Your task to perform on an android device: Open network settings Image 0: 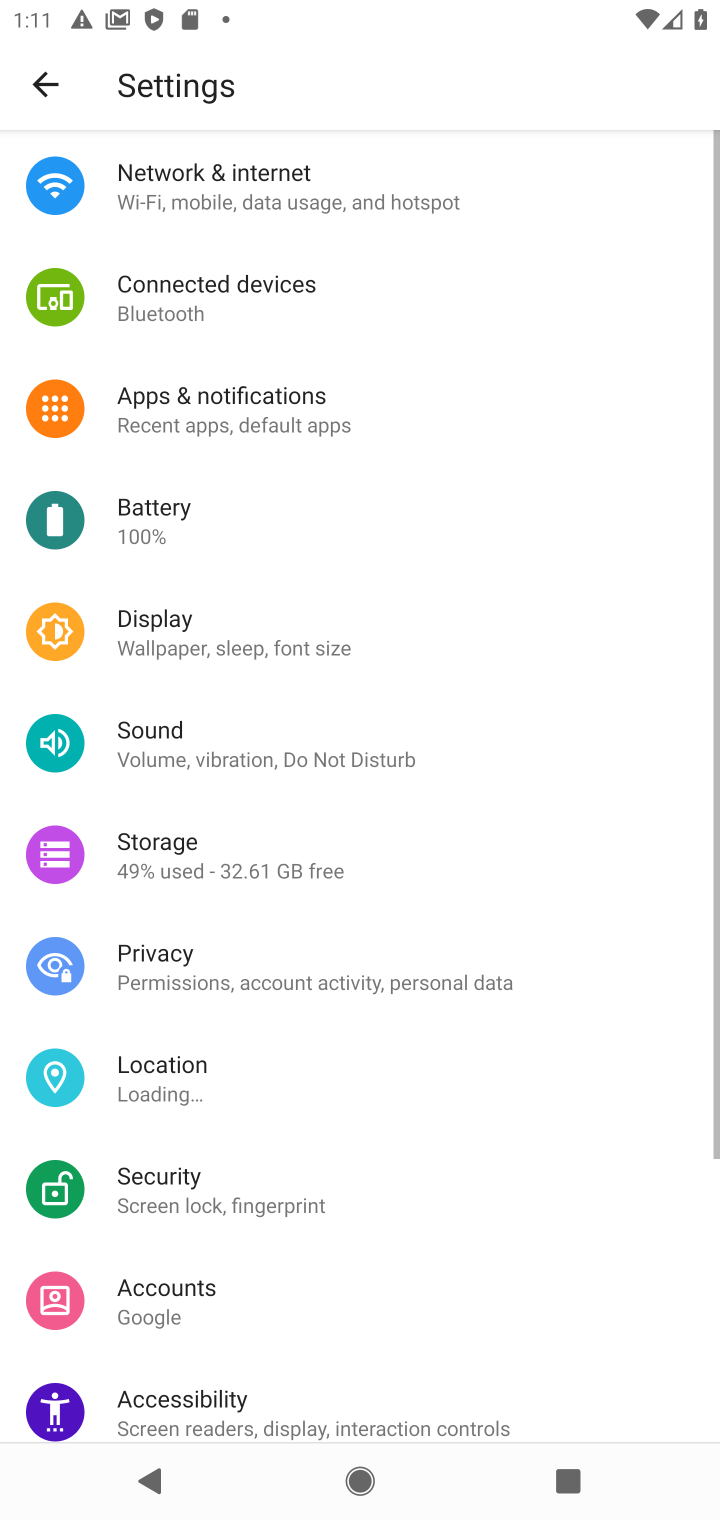
Step 0: press home button
Your task to perform on an android device: Open network settings Image 1: 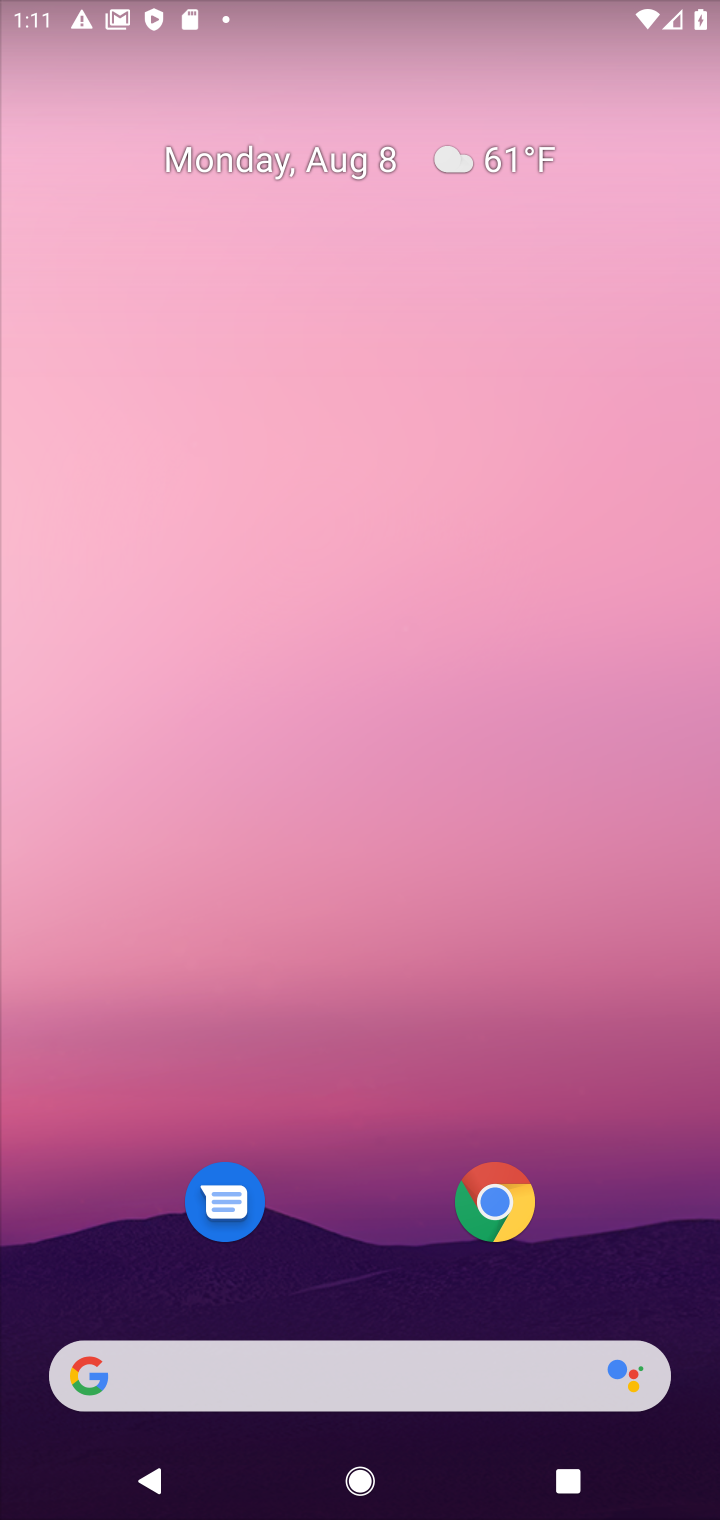
Step 1: press home button
Your task to perform on an android device: Open network settings Image 2: 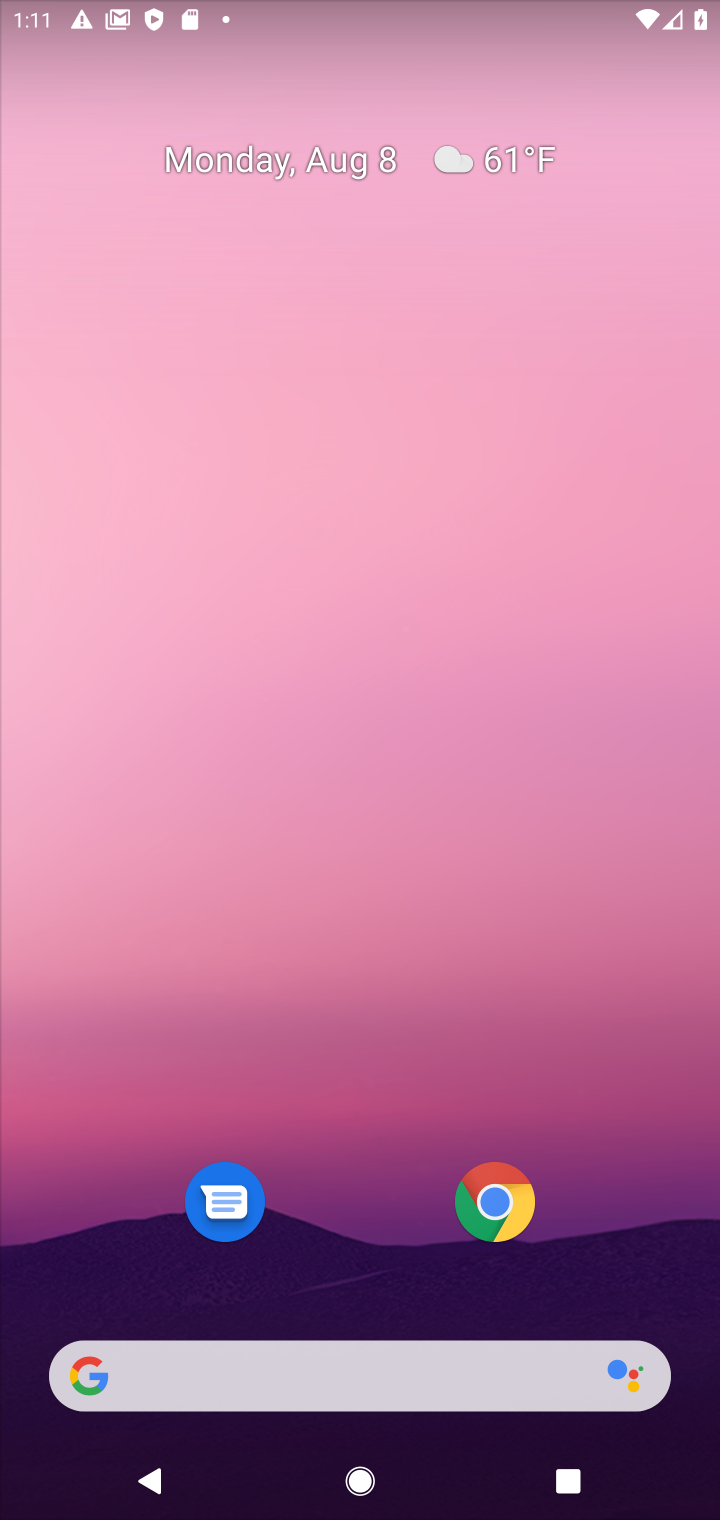
Step 2: drag from (623, 1119) to (652, 247)
Your task to perform on an android device: Open network settings Image 3: 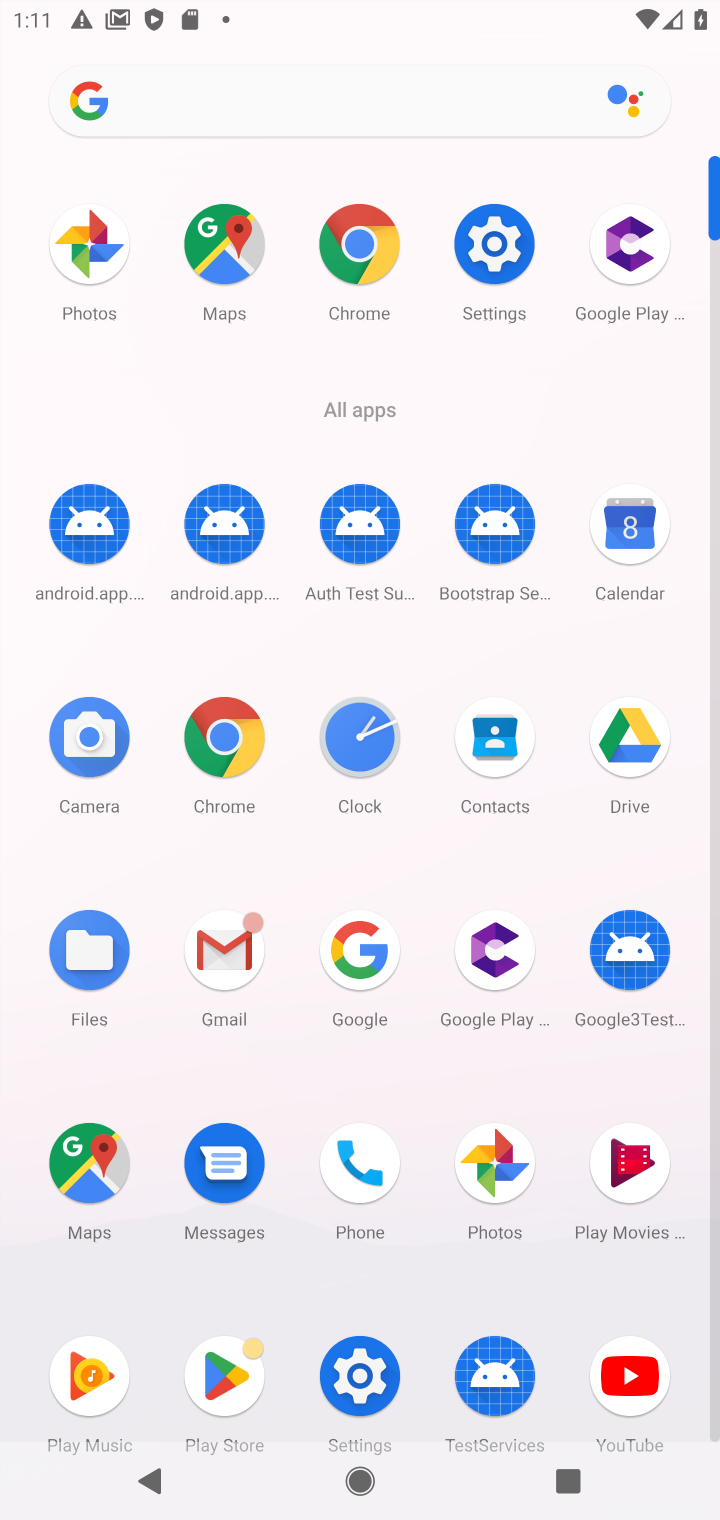
Step 3: click (489, 225)
Your task to perform on an android device: Open network settings Image 4: 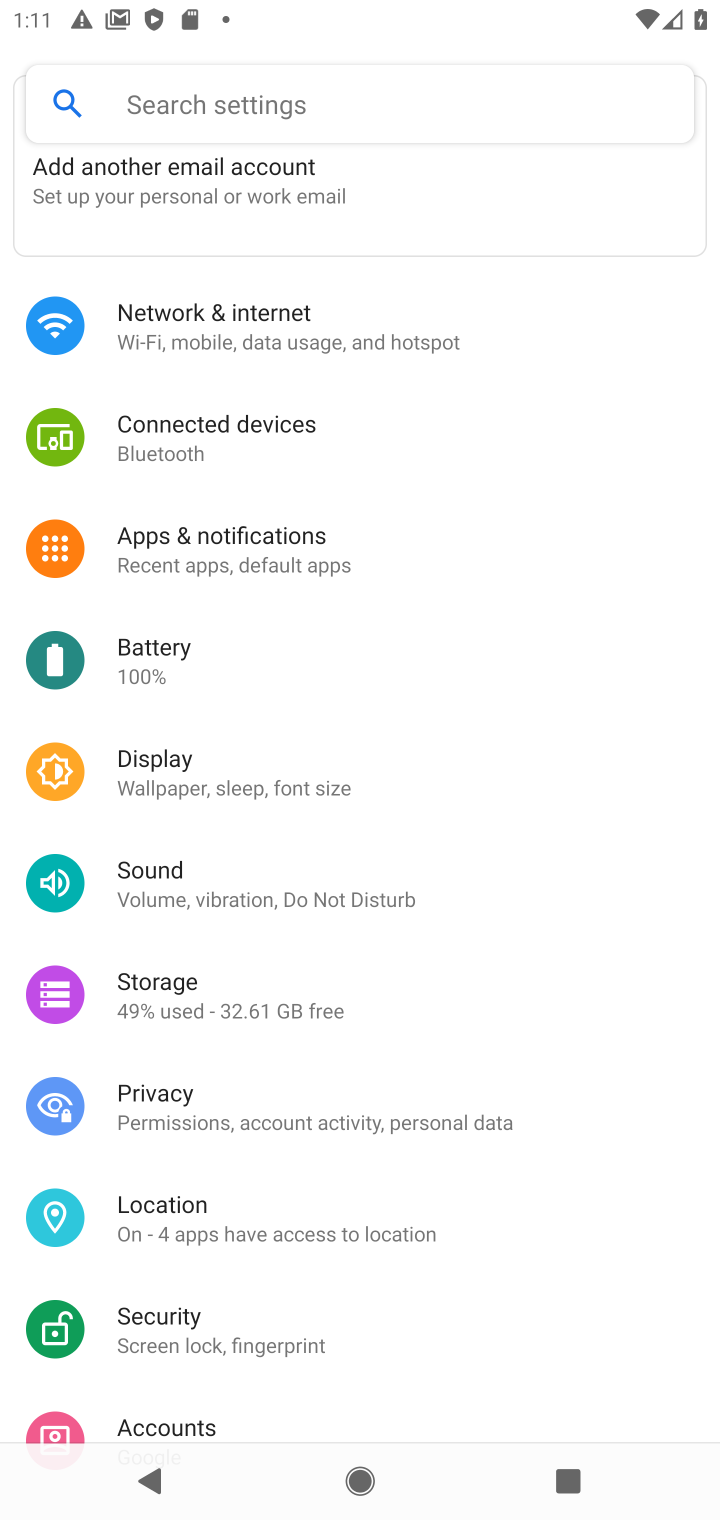
Step 4: drag from (614, 983) to (615, 717)
Your task to perform on an android device: Open network settings Image 5: 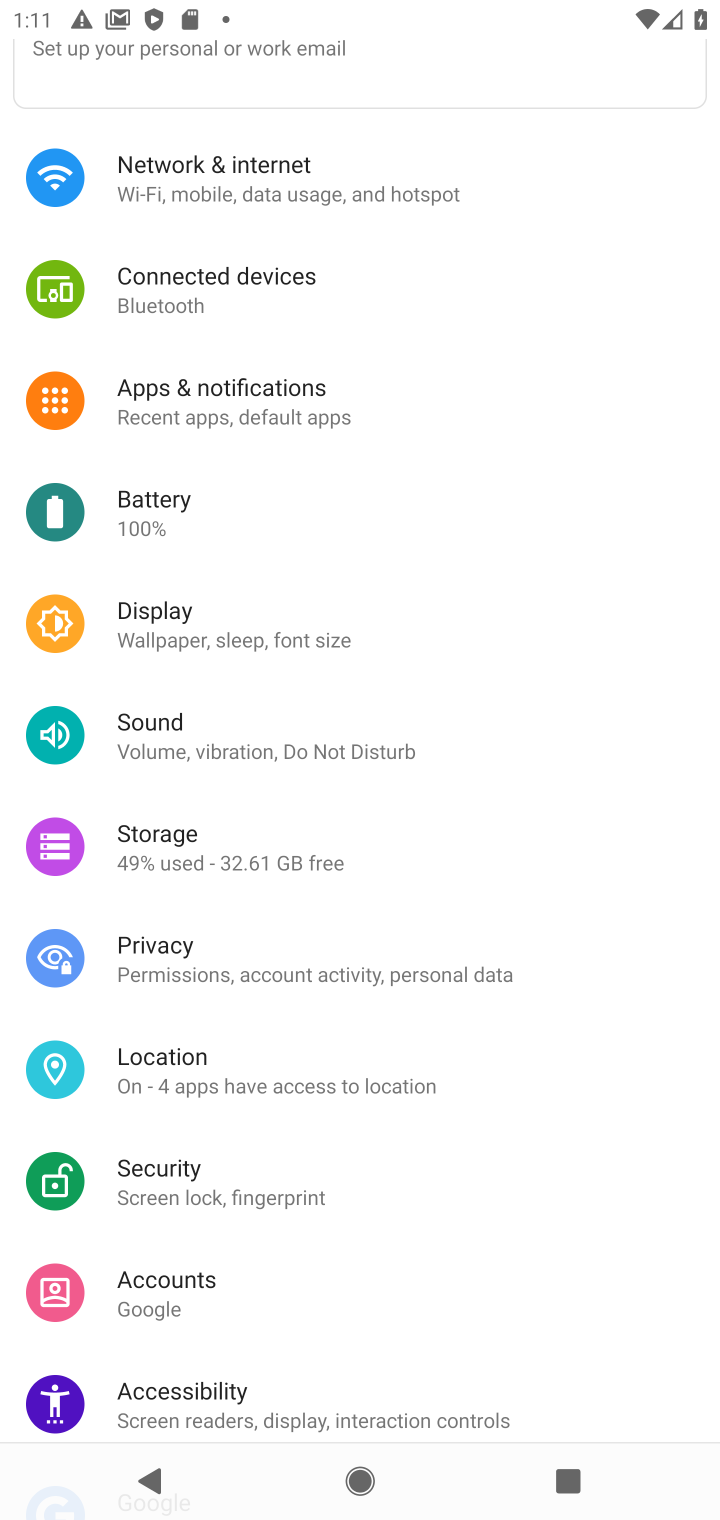
Step 5: drag from (586, 992) to (596, 752)
Your task to perform on an android device: Open network settings Image 6: 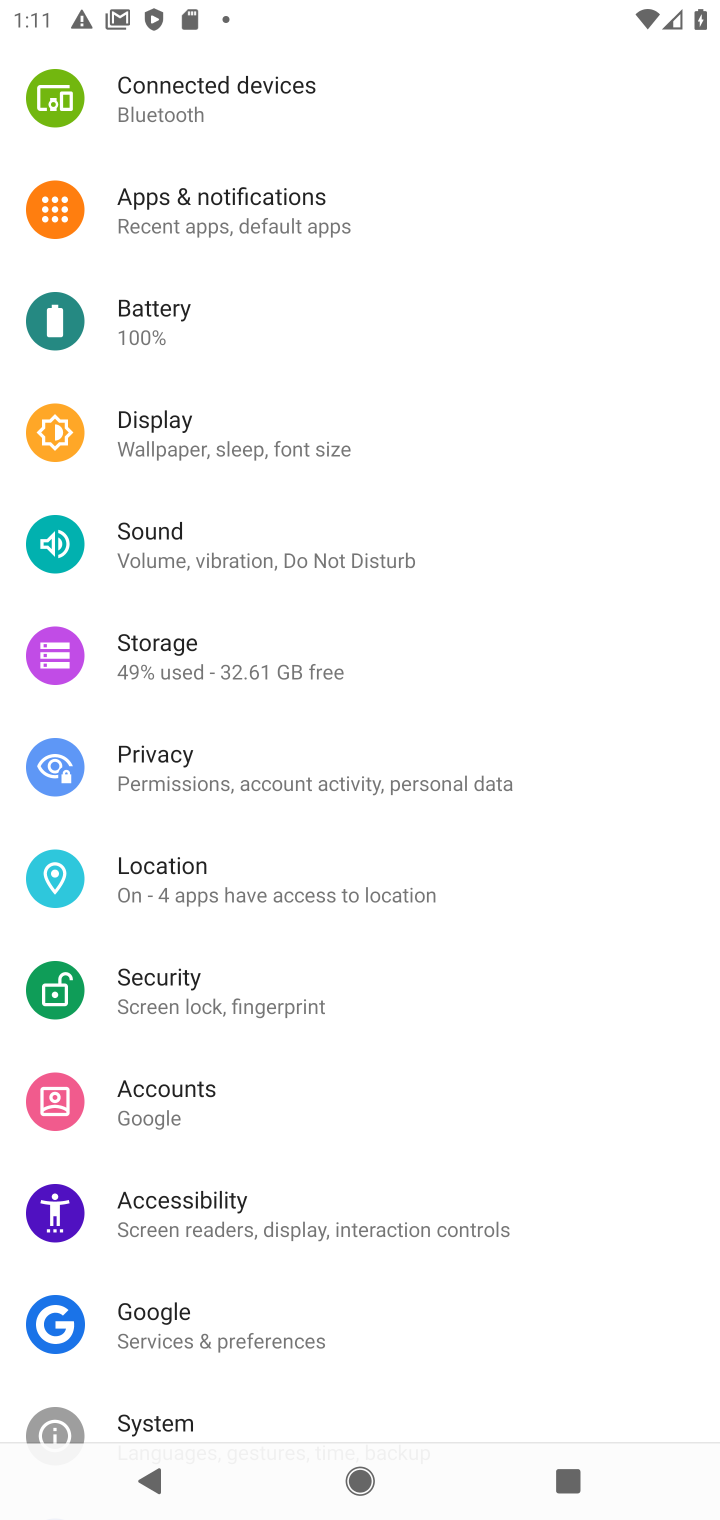
Step 6: drag from (569, 988) to (578, 729)
Your task to perform on an android device: Open network settings Image 7: 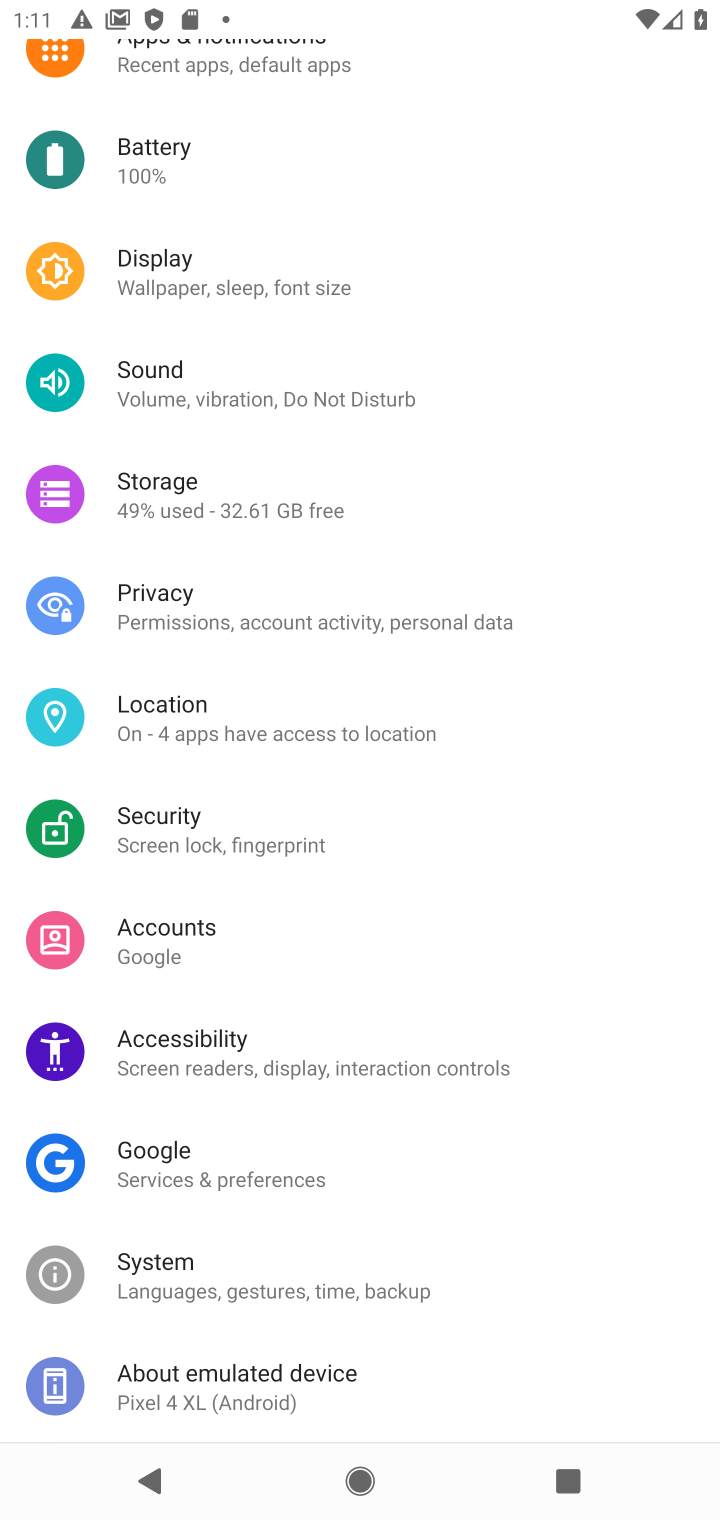
Step 7: drag from (561, 896) to (567, 672)
Your task to perform on an android device: Open network settings Image 8: 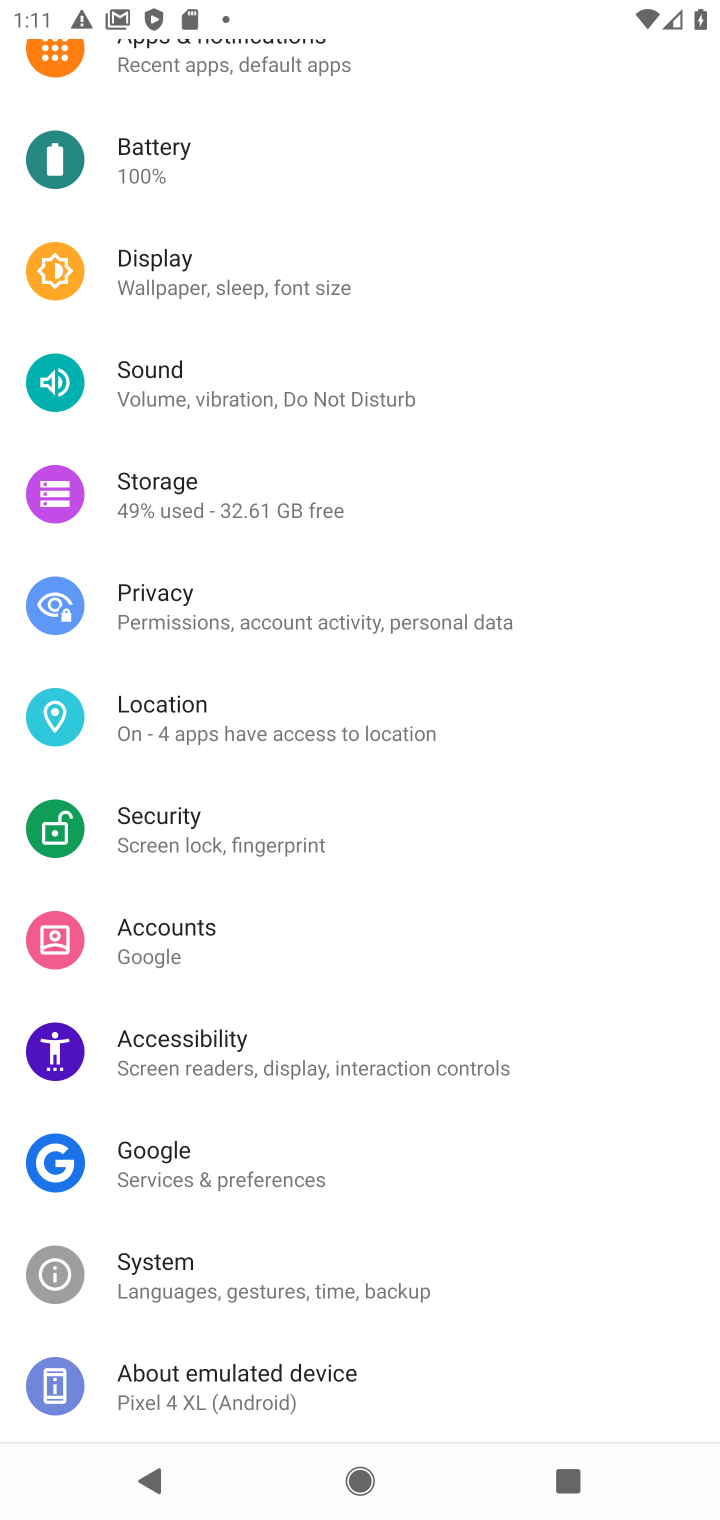
Step 8: drag from (614, 942) to (626, 548)
Your task to perform on an android device: Open network settings Image 9: 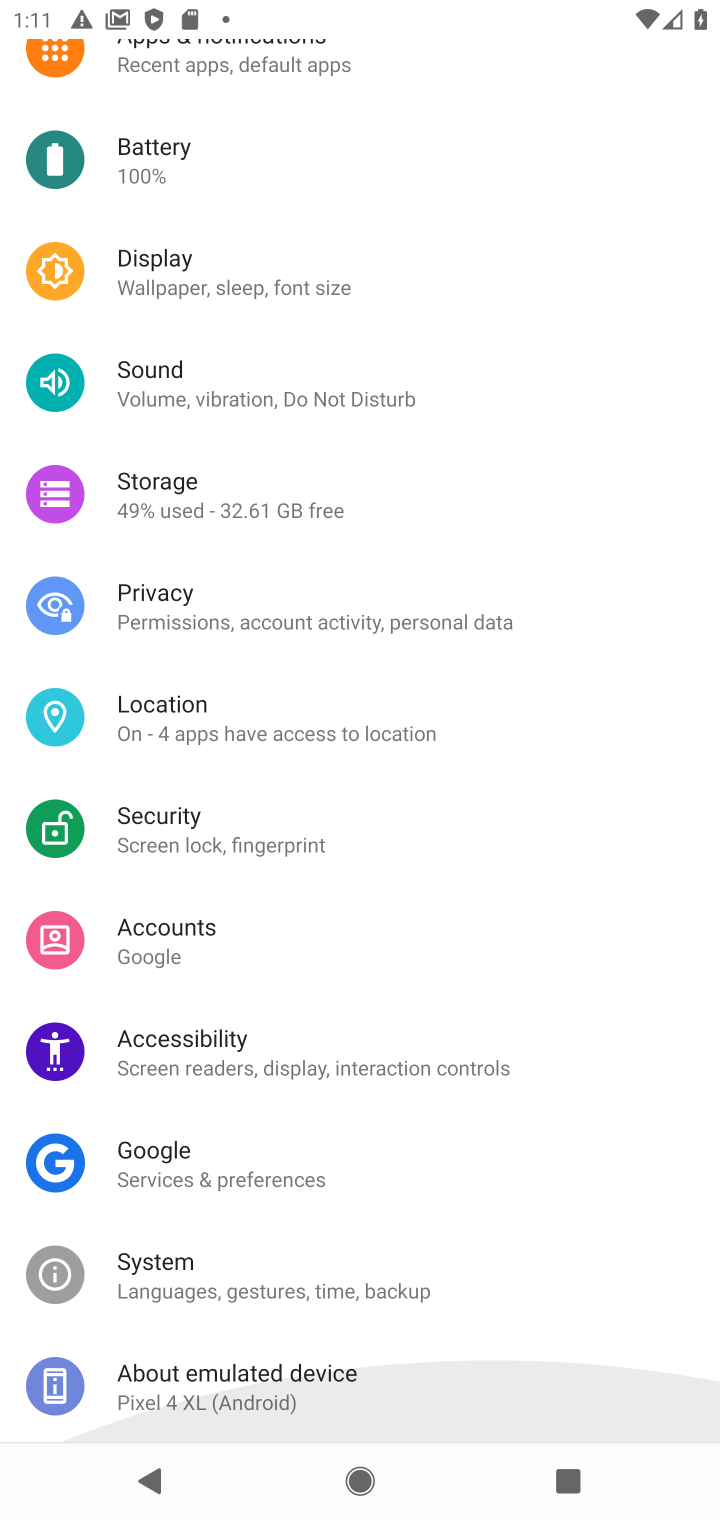
Step 9: drag from (580, 366) to (590, 649)
Your task to perform on an android device: Open network settings Image 10: 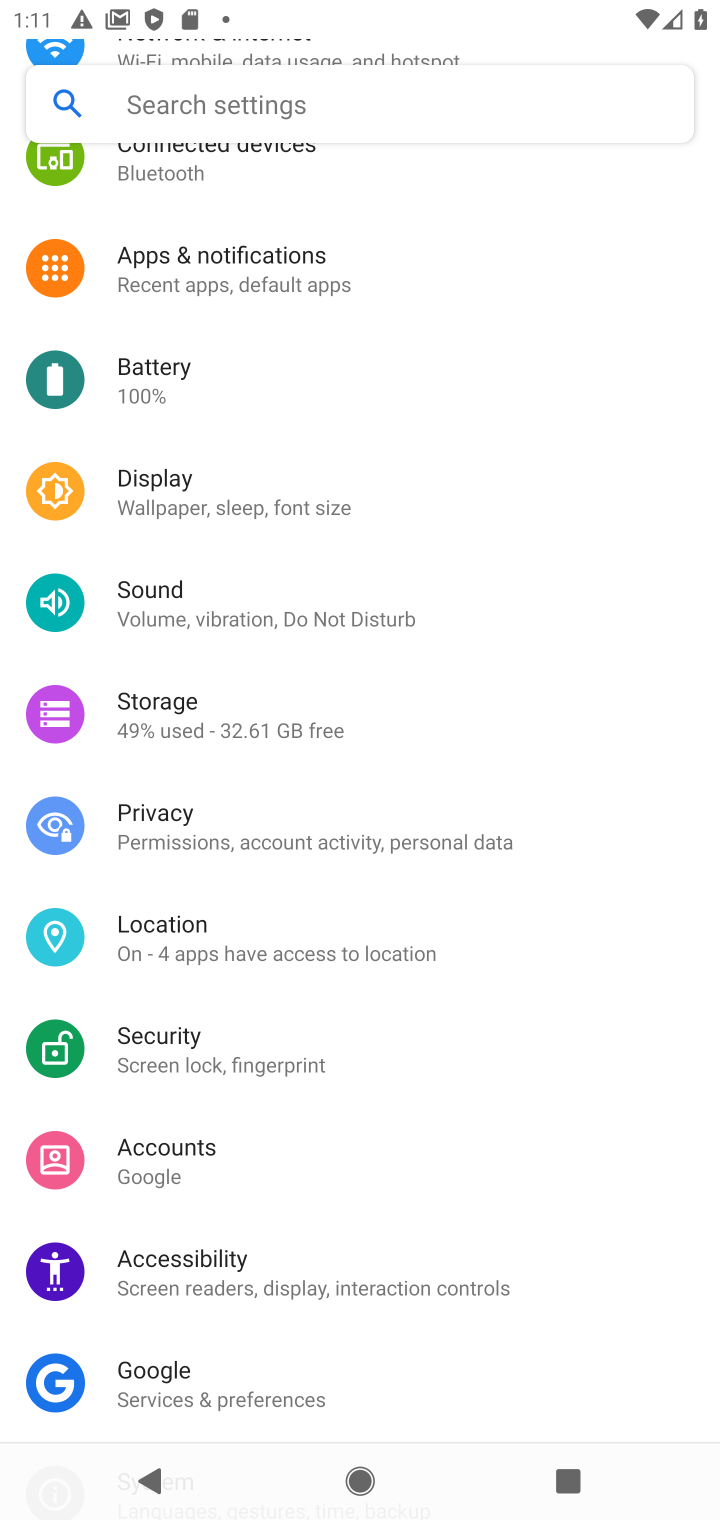
Step 10: drag from (616, 515) to (616, 643)
Your task to perform on an android device: Open network settings Image 11: 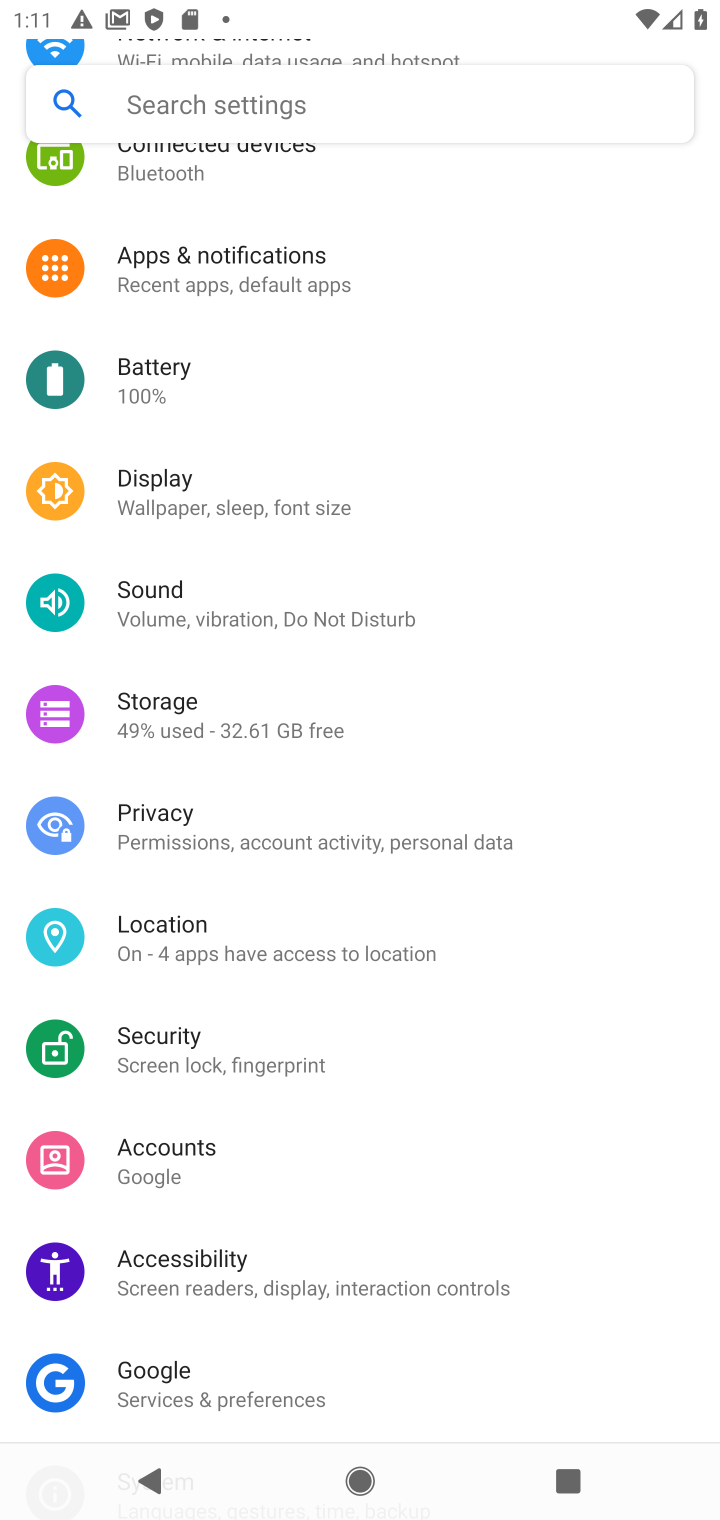
Step 11: drag from (604, 427) to (572, 791)
Your task to perform on an android device: Open network settings Image 12: 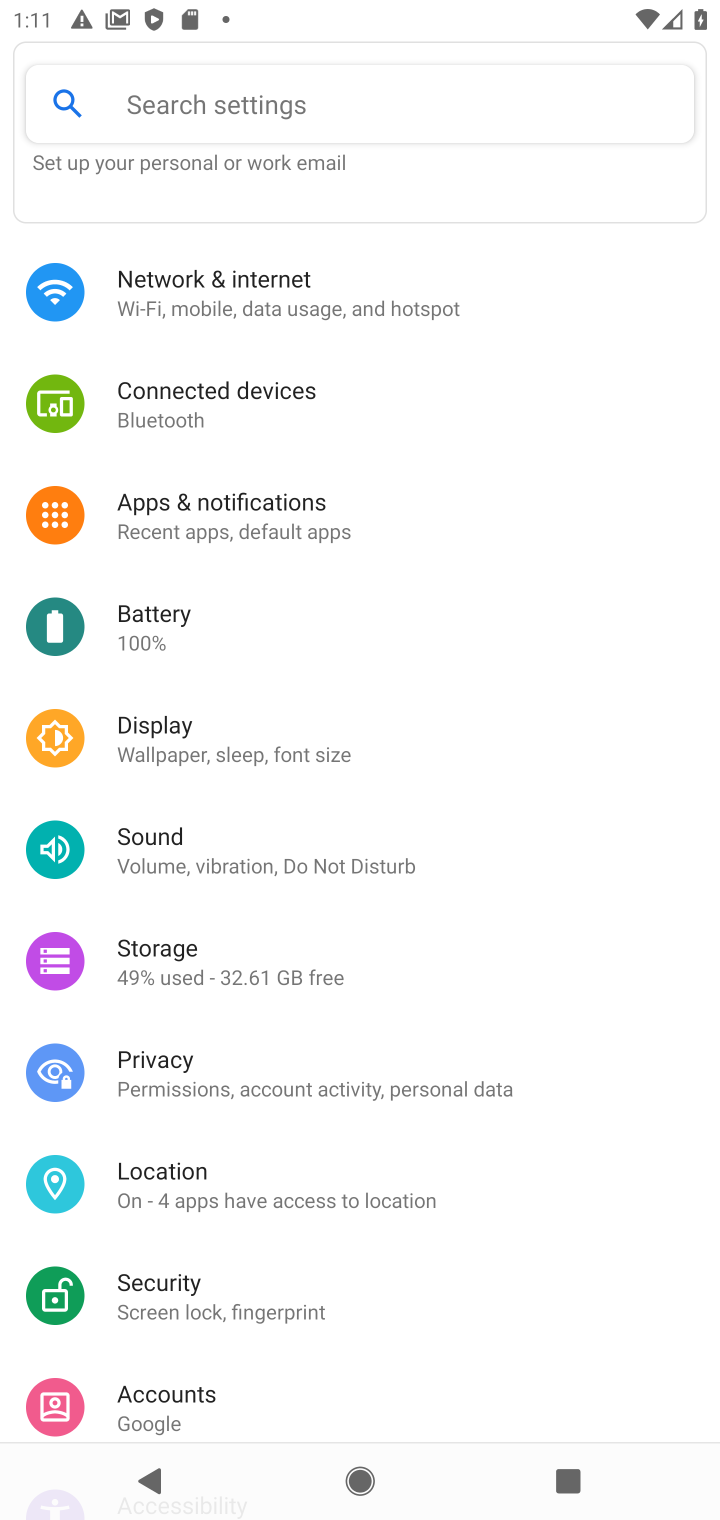
Step 12: drag from (576, 371) to (589, 805)
Your task to perform on an android device: Open network settings Image 13: 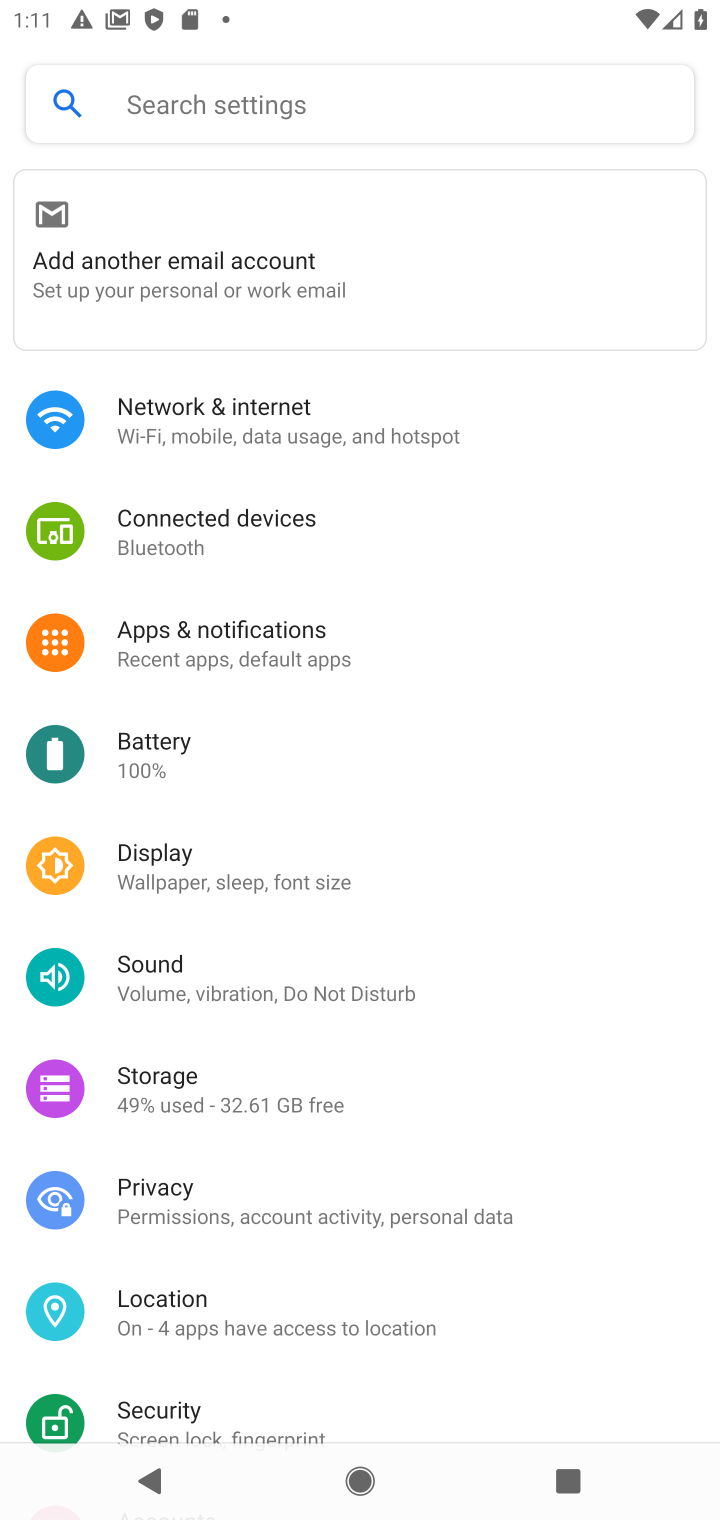
Step 13: click (439, 405)
Your task to perform on an android device: Open network settings Image 14: 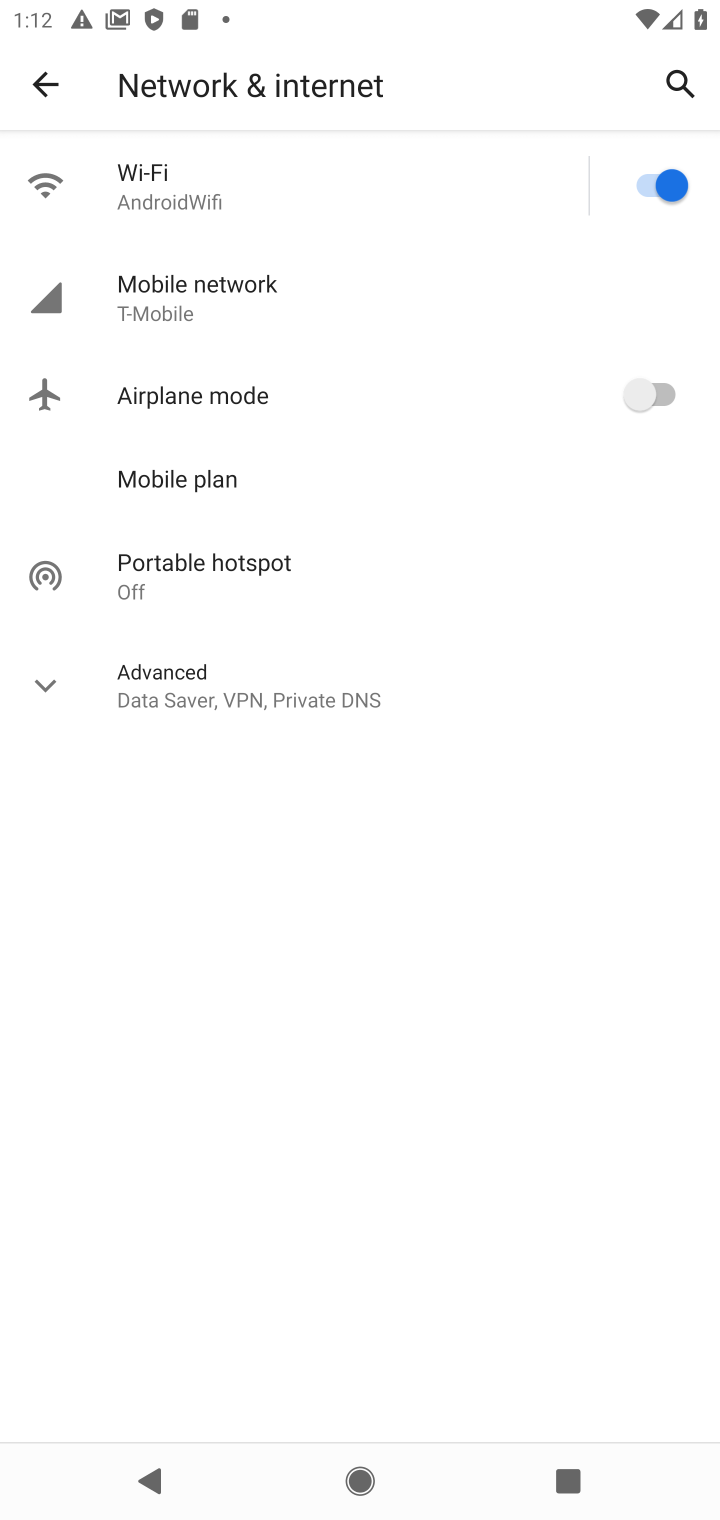
Step 14: task complete